Your task to perform on an android device: Search for pizza restaurants on Maps Image 0: 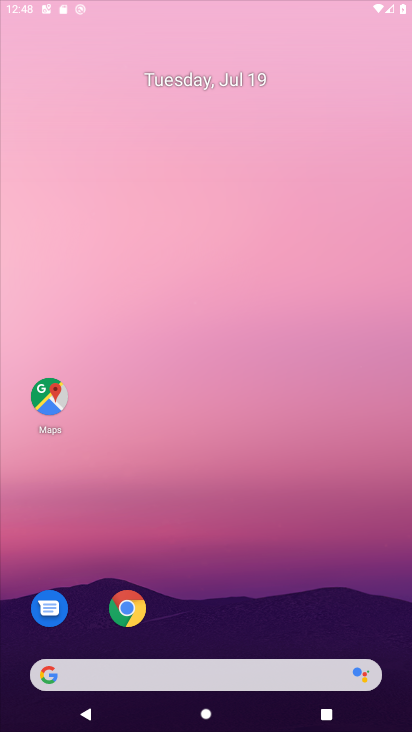
Step 0: drag from (206, 605) to (231, 139)
Your task to perform on an android device: Search for pizza restaurants on Maps Image 1: 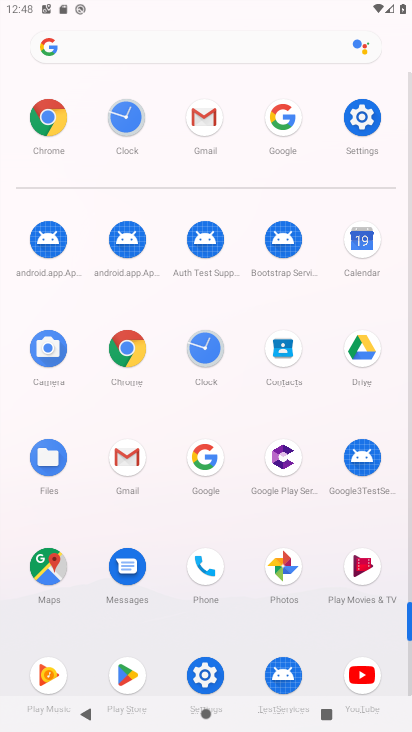
Step 1: click (59, 563)
Your task to perform on an android device: Search for pizza restaurants on Maps Image 2: 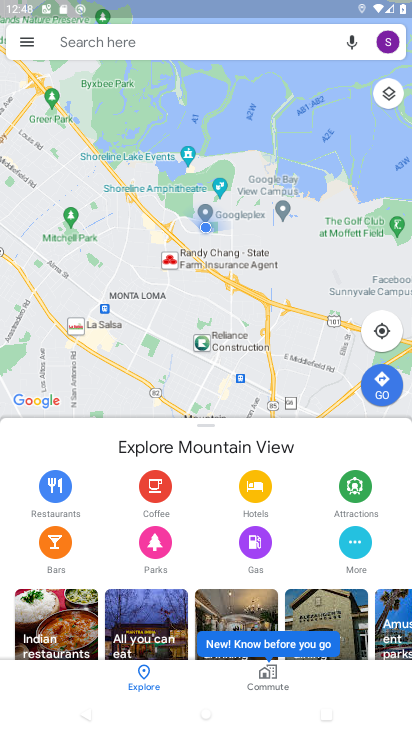
Step 2: click (185, 36)
Your task to perform on an android device: Search for pizza restaurants on Maps Image 3: 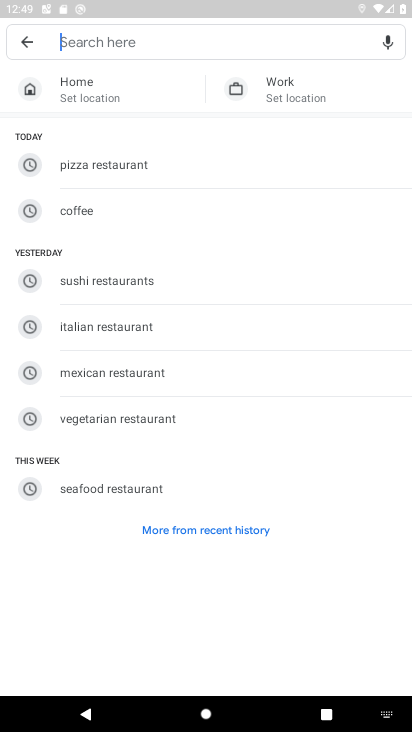
Step 3: click (177, 172)
Your task to perform on an android device: Search for pizza restaurants on Maps Image 4: 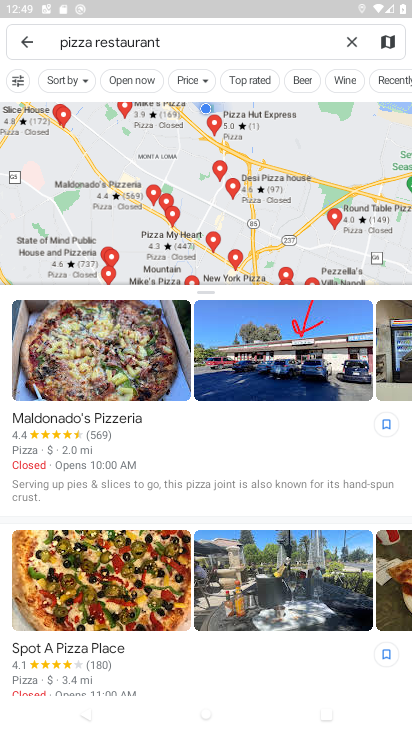
Step 4: task complete